Your task to perform on an android device: manage bookmarks in the chrome app Image 0: 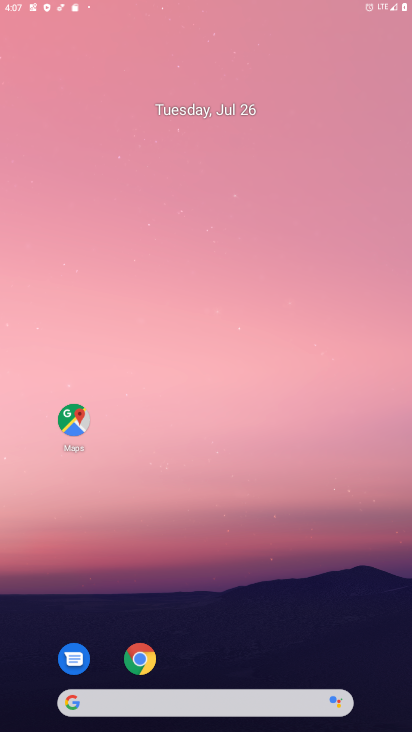
Step 0: press home button
Your task to perform on an android device: manage bookmarks in the chrome app Image 1: 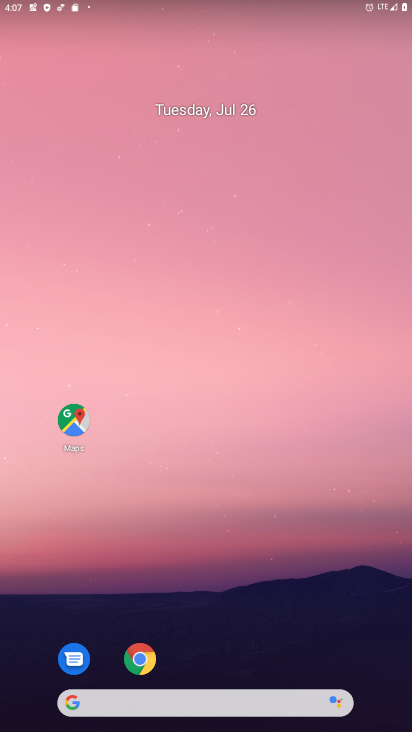
Step 1: drag from (233, 670) to (197, 269)
Your task to perform on an android device: manage bookmarks in the chrome app Image 2: 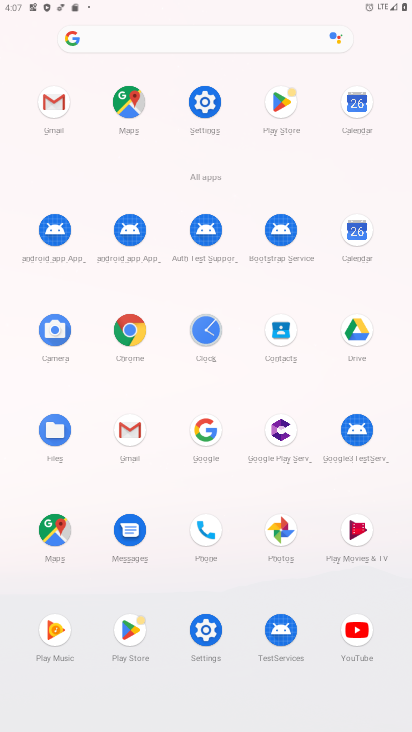
Step 2: click (128, 339)
Your task to perform on an android device: manage bookmarks in the chrome app Image 3: 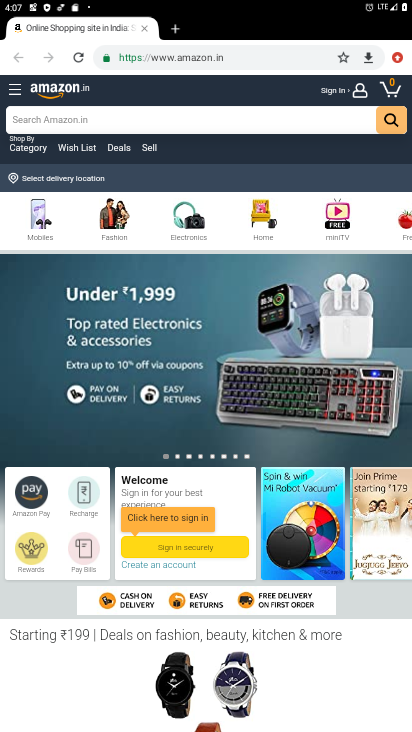
Step 3: drag from (399, 55) to (292, 158)
Your task to perform on an android device: manage bookmarks in the chrome app Image 4: 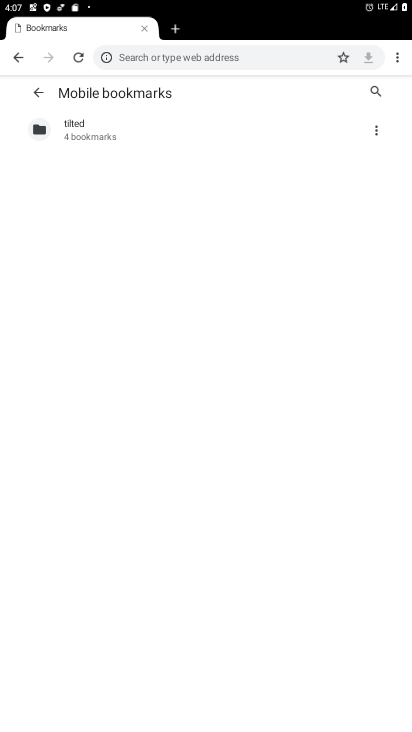
Step 4: click (380, 125)
Your task to perform on an android device: manage bookmarks in the chrome app Image 5: 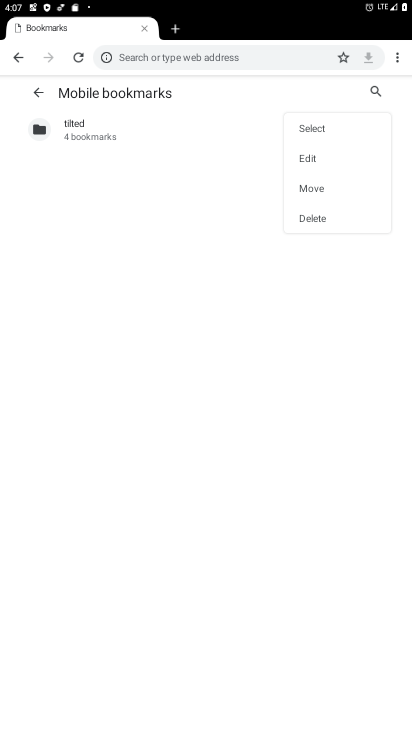
Step 5: click (307, 156)
Your task to perform on an android device: manage bookmarks in the chrome app Image 6: 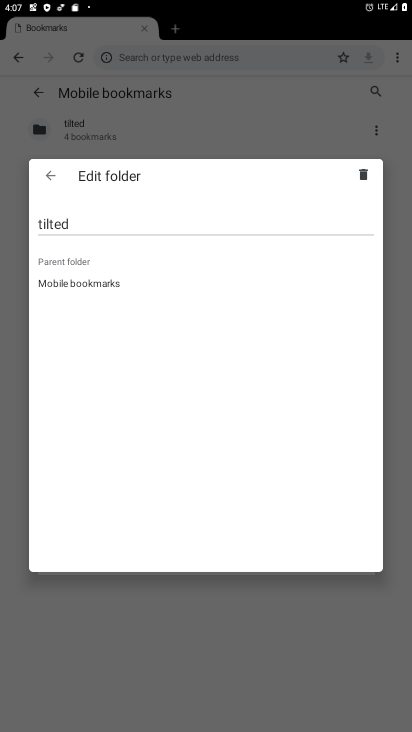
Step 6: task complete